Your task to perform on an android device: Open Amazon Image 0: 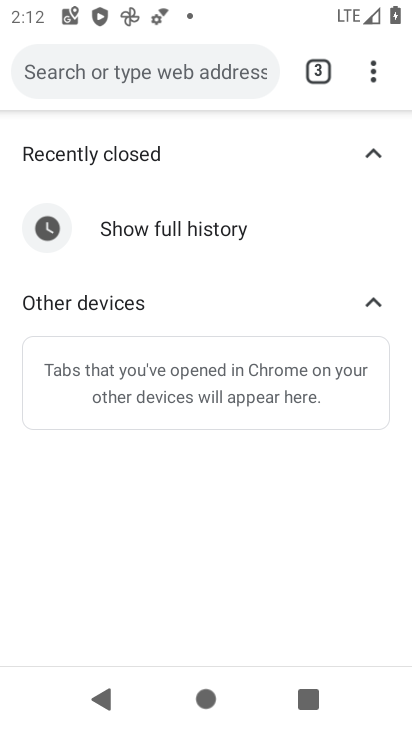
Step 0: press home button
Your task to perform on an android device: Open Amazon Image 1: 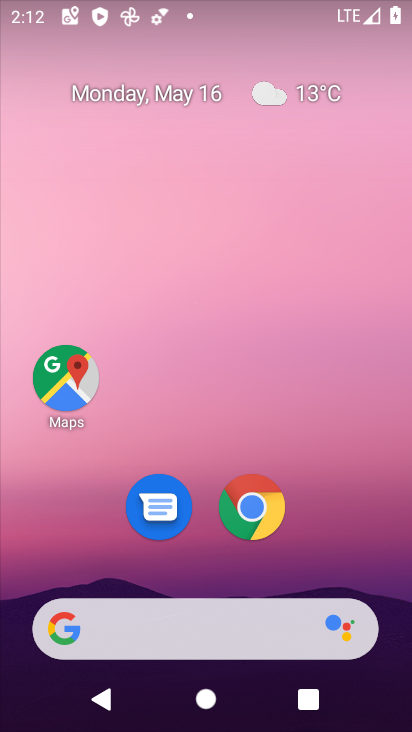
Step 1: drag from (330, 526) to (262, 35)
Your task to perform on an android device: Open Amazon Image 2: 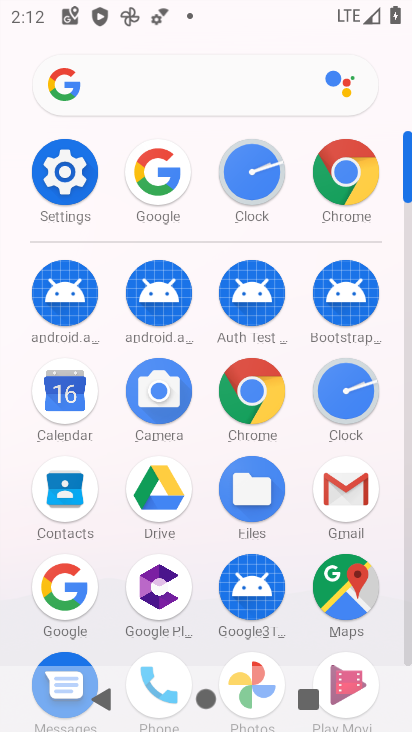
Step 2: click (269, 373)
Your task to perform on an android device: Open Amazon Image 3: 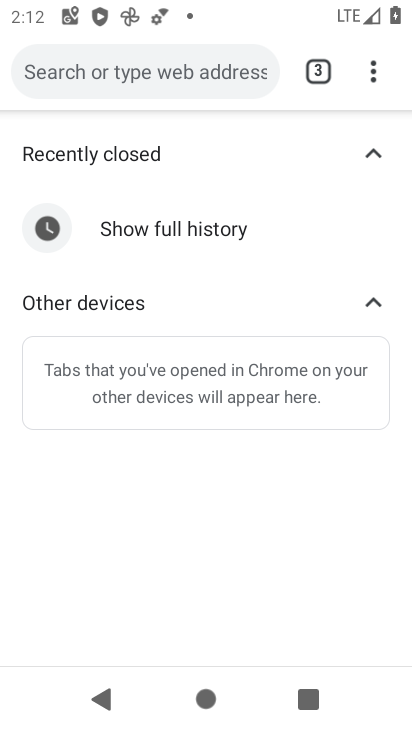
Step 3: click (322, 70)
Your task to perform on an android device: Open Amazon Image 4: 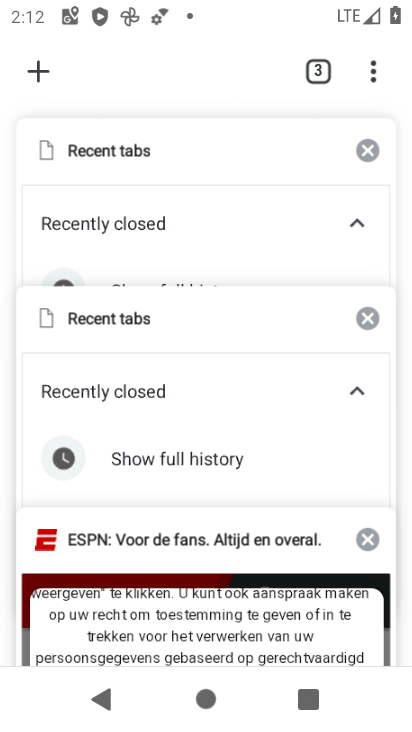
Step 4: click (26, 70)
Your task to perform on an android device: Open Amazon Image 5: 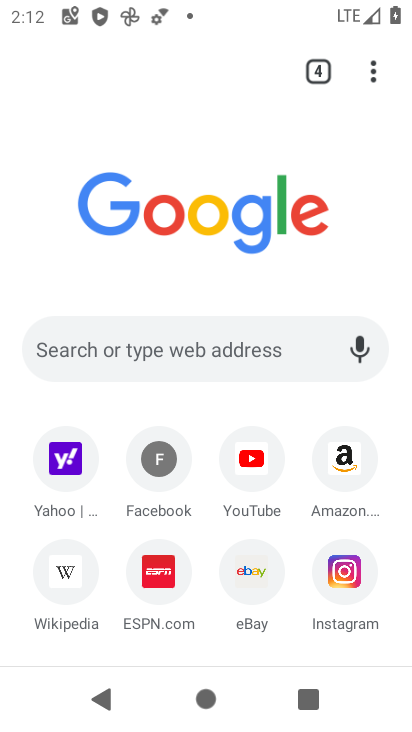
Step 5: click (349, 449)
Your task to perform on an android device: Open Amazon Image 6: 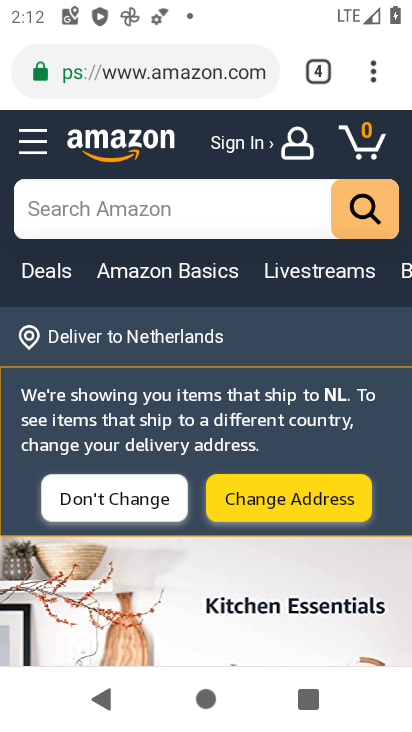
Step 6: task complete